Your task to perform on an android device: Go to battery settings Image 0: 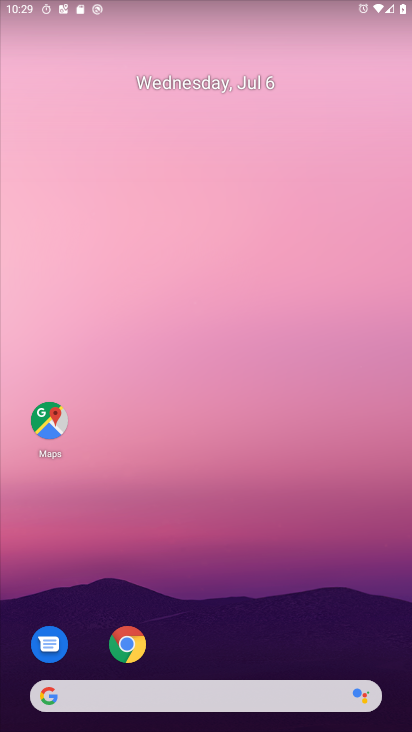
Step 0: drag from (217, 539) to (233, 218)
Your task to perform on an android device: Go to battery settings Image 1: 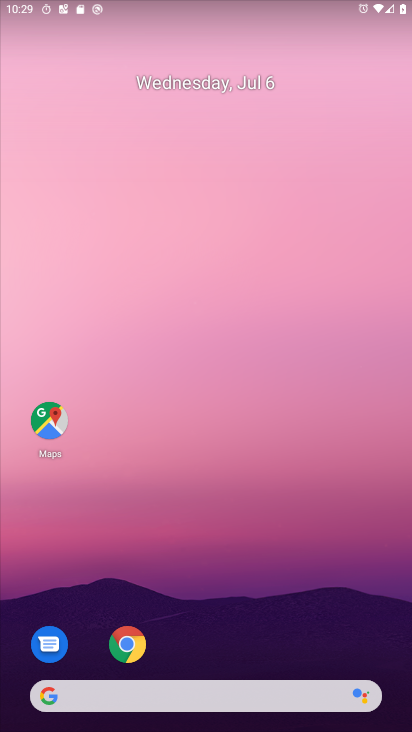
Step 1: drag from (208, 631) to (260, 120)
Your task to perform on an android device: Go to battery settings Image 2: 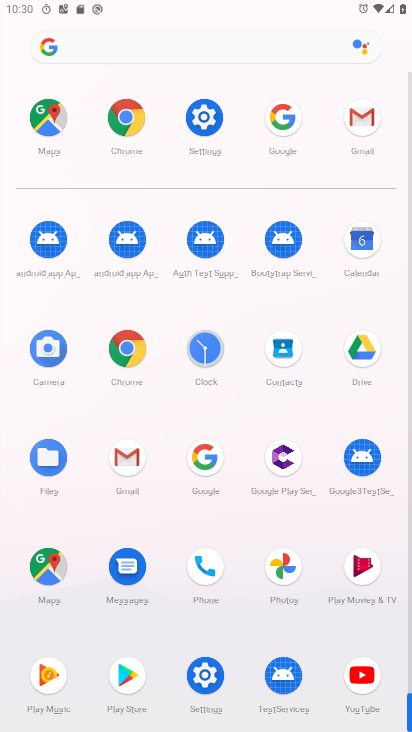
Step 2: click (210, 122)
Your task to perform on an android device: Go to battery settings Image 3: 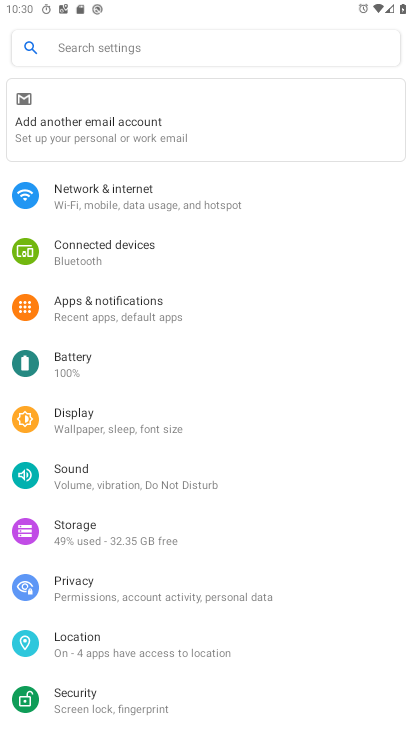
Step 3: click (122, 353)
Your task to perform on an android device: Go to battery settings Image 4: 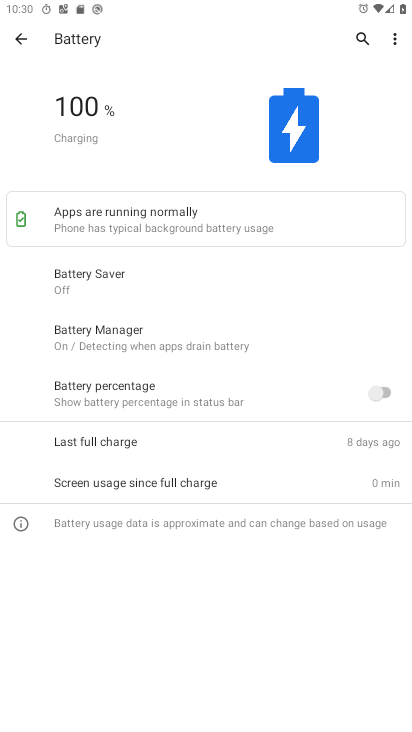
Step 4: task complete